Your task to perform on an android device: Open Chrome and go to settings Image 0: 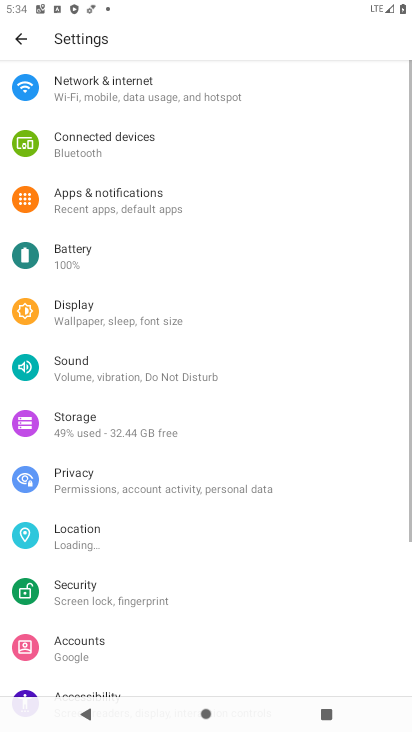
Step 0: press home button
Your task to perform on an android device: Open Chrome and go to settings Image 1: 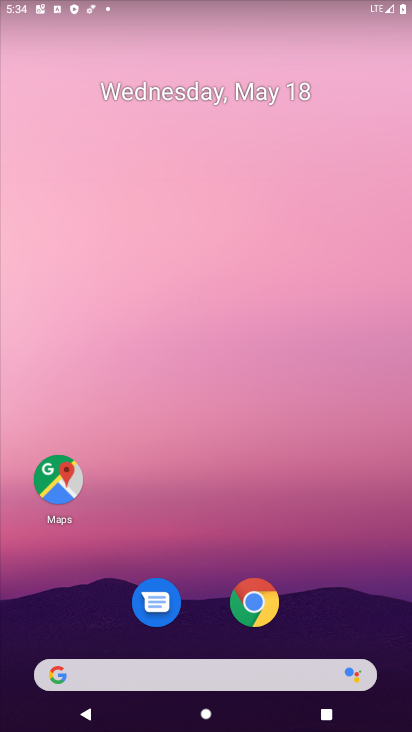
Step 1: drag from (323, 683) to (385, 0)
Your task to perform on an android device: Open Chrome and go to settings Image 2: 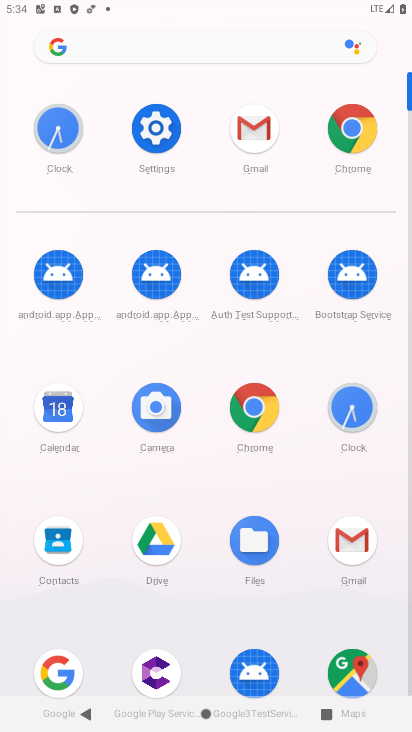
Step 2: click (242, 397)
Your task to perform on an android device: Open Chrome and go to settings Image 3: 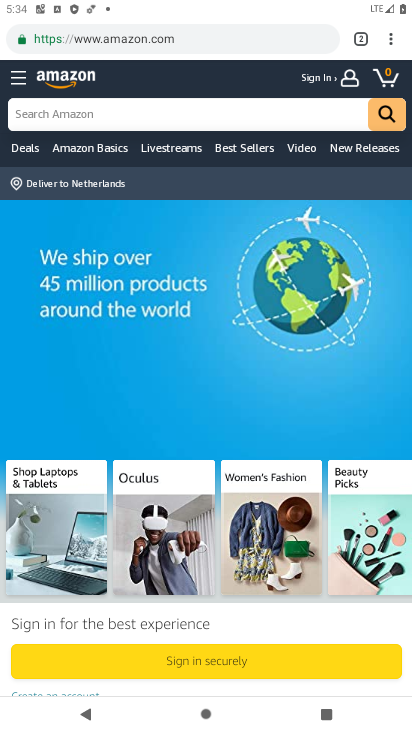
Step 3: click (387, 35)
Your task to perform on an android device: Open Chrome and go to settings Image 4: 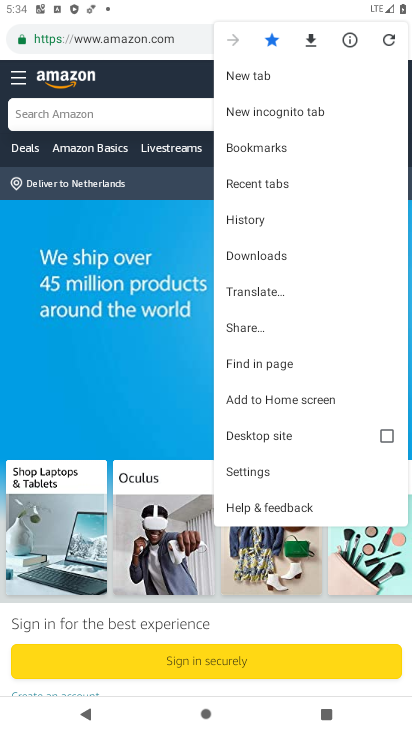
Step 4: click (273, 474)
Your task to perform on an android device: Open Chrome and go to settings Image 5: 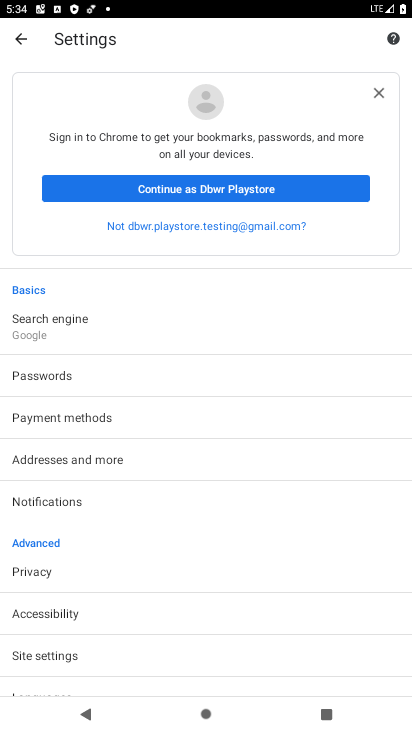
Step 5: task complete